Your task to perform on an android device: Open the Play Movies app and select the watchlist tab. Image 0: 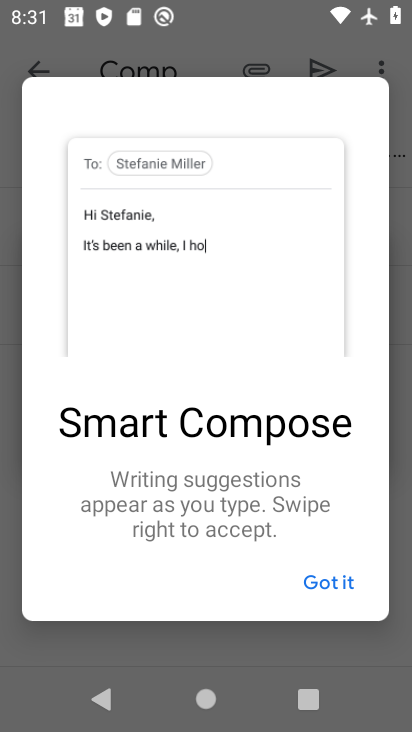
Step 0: press home button
Your task to perform on an android device: Open the Play Movies app and select the watchlist tab. Image 1: 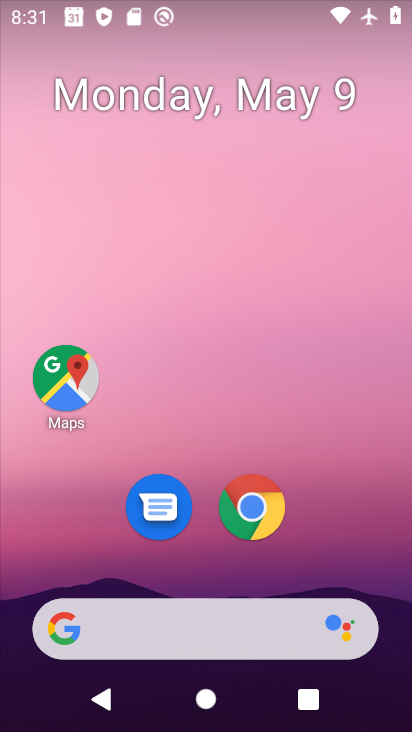
Step 1: drag from (204, 578) to (213, 1)
Your task to perform on an android device: Open the Play Movies app and select the watchlist tab. Image 2: 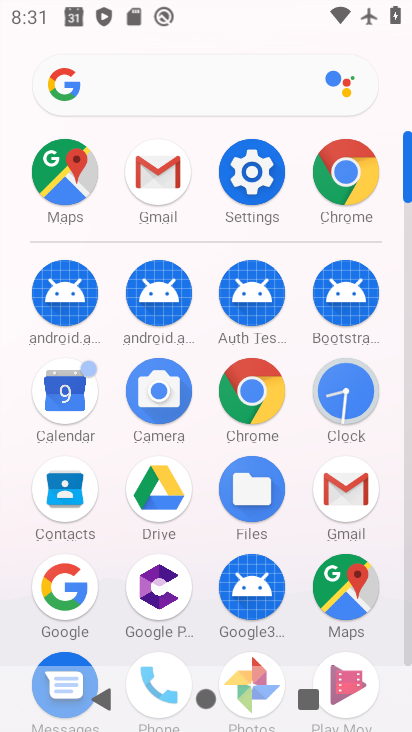
Step 2: click (344, 652)
Your task to perform on an android device: Open the Play Movies app and select the watchlist tab. Image 3: 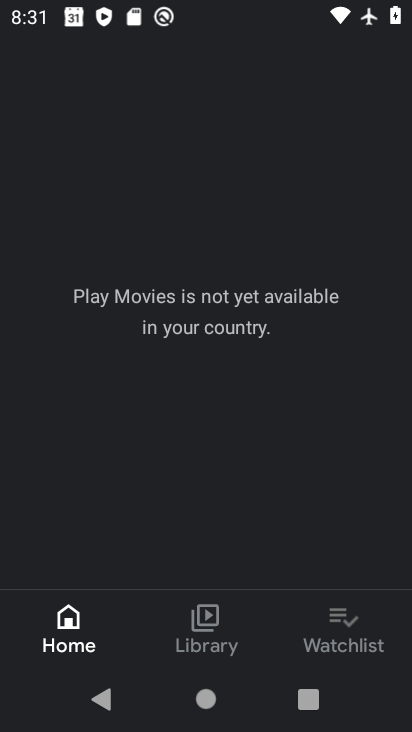
Step 3: click (344, 631)
Your task to perform on an android device: Open the Play Movies app and select the watchlist tab. Image 4: 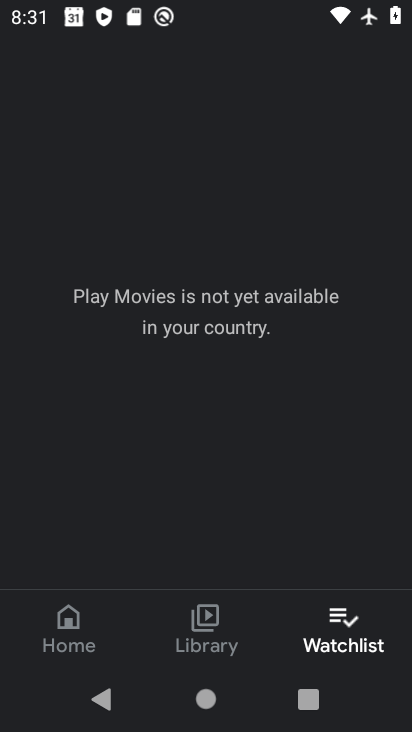
Step 4: task complete